Your task to perform on an android device: Go to Wikipedia Image 0: 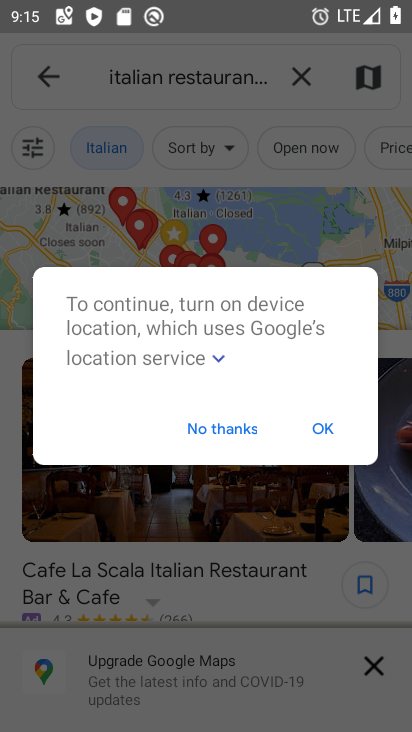
Step 0: press home button
Your task to perform on an android device: Go to Wikipedia Image 1: 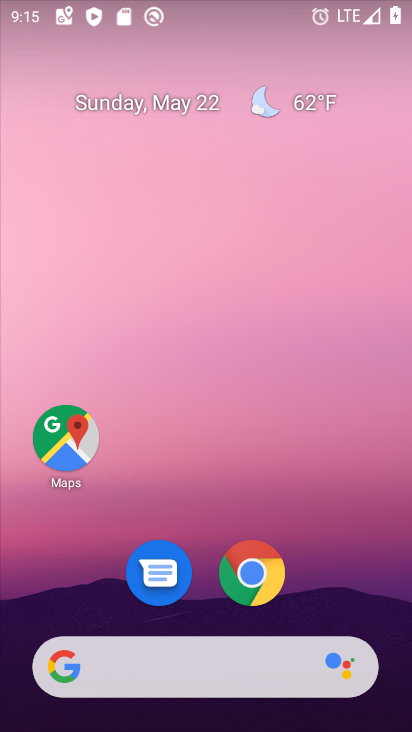
Step 1: drag from (203, 677) to (271, 0)
Your task to perform on an android device: Go to Wikipedia Image 2: 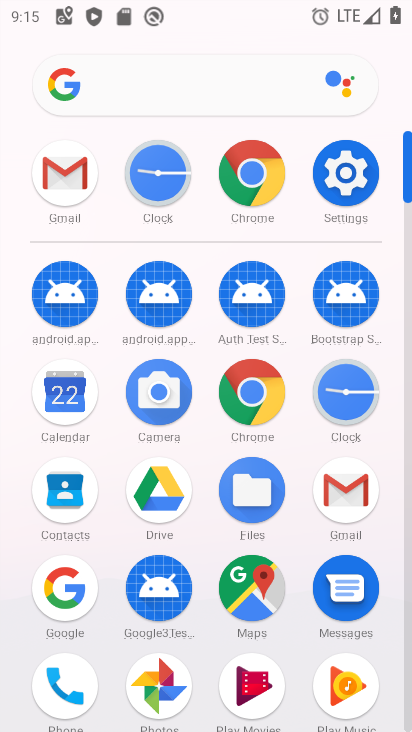
Step 2: click (228, 400)
Your task to perform on an android device: Go to Wikipedia Image 3: 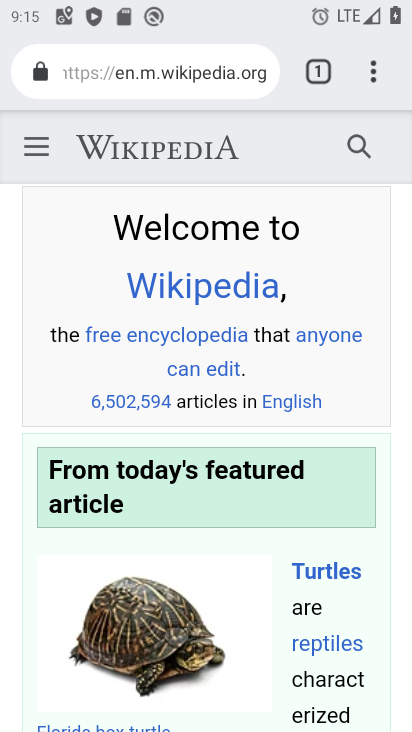
Step 3: task complete